Your task to perform on an android device: allow cookies in the chrome app Image 0: 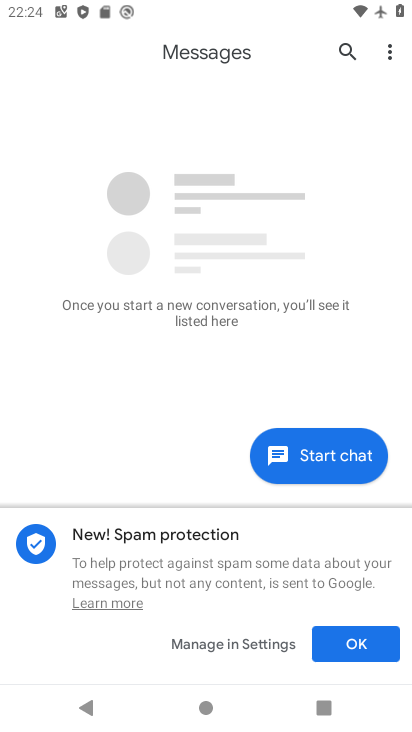
Step 0: press home button
Your task to perform on an android device: allow cookies in the chrome app Image 1: 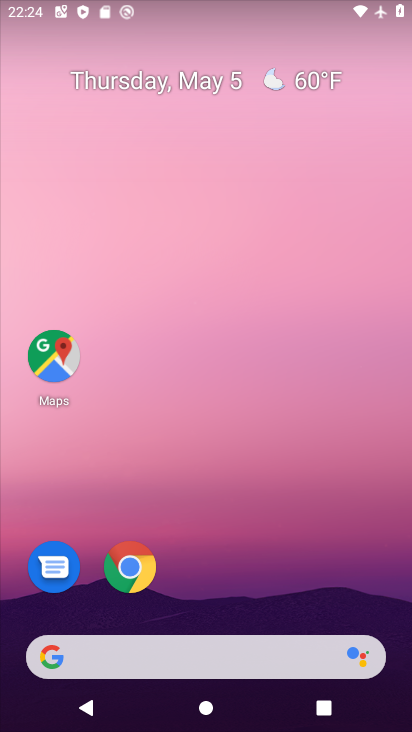
Step 1: click (234, 576)
Your task to perform on an android device: allow cookies in the chrome app Image 2: 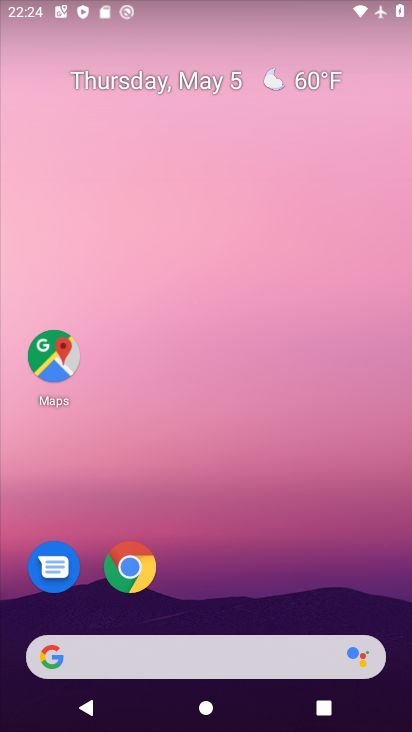
Step 2: click (143, 584)
Your task to perform on an android device: allow cookies in the chrome app Image 3: 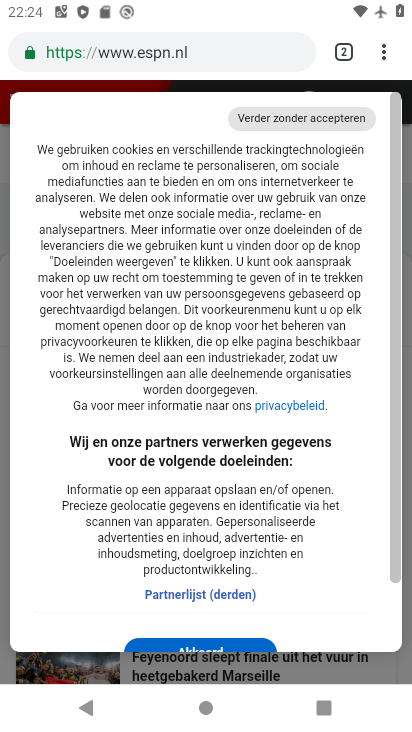
Step 3: click (377, 50)
Your task to perform on an android device: allow cookies in the chrome app Image 4: 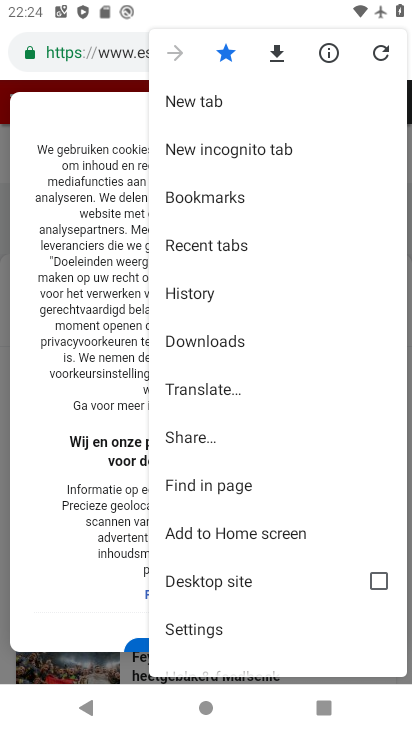
Step 4: click (232, 626)
Your task to perform on an android device: allow cookies in the chrome app Image 5: 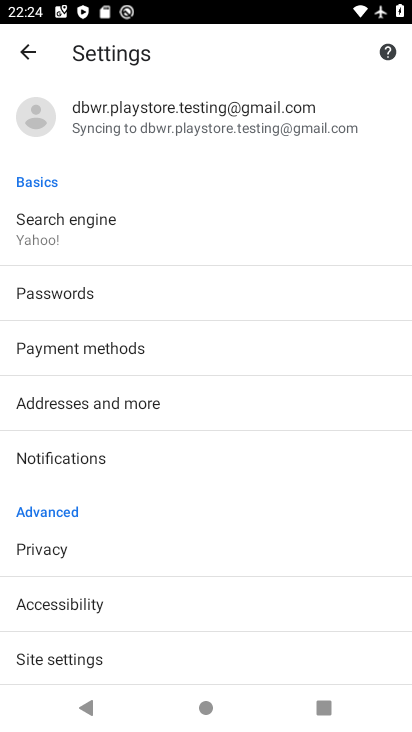
Step 5: click (105, 647)
Your task to perform on an android device: allow cookies in the chrome app Image 6: 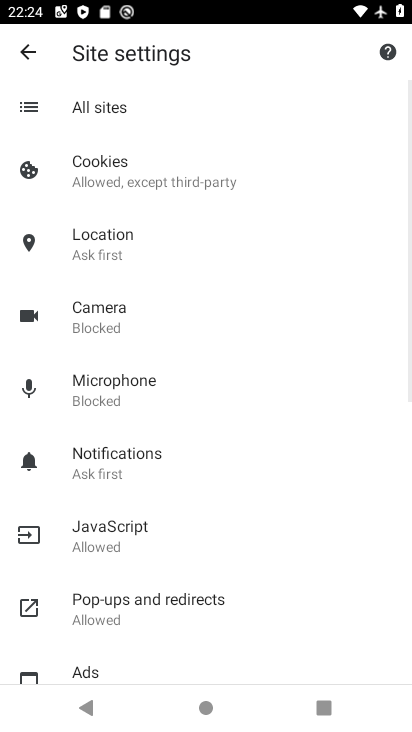
Step 6: click (104, 157)
Your task to perform on an android device: allow cookies in the chrome app Image 7: 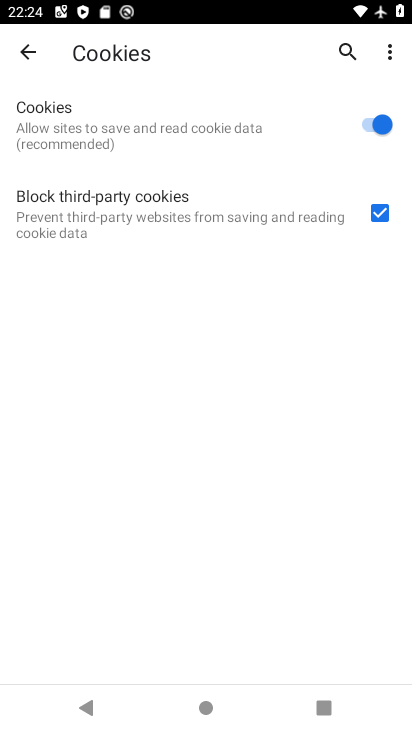
Step 7: task complete